Your task to perform on an android device: set an alarm Image 0: 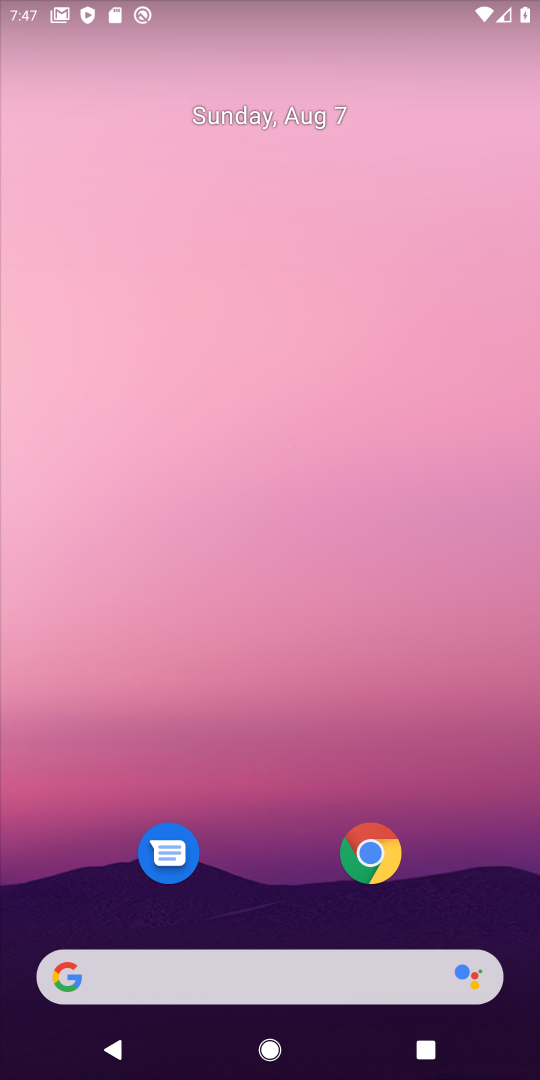
Step 0: drag from (259, 577) to (310, 242)
Your task to perform on an android device: set an alarm Image 1: 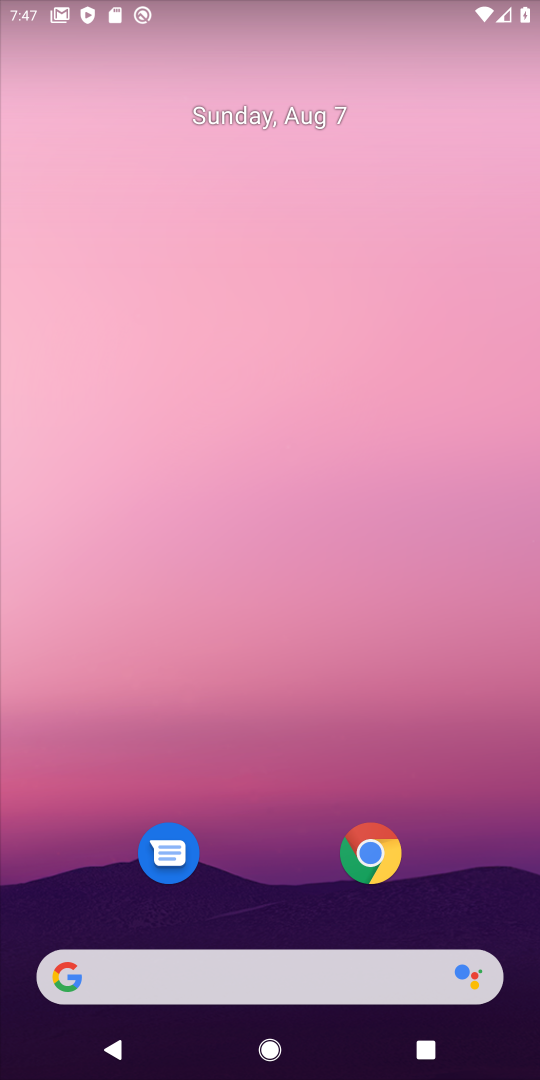
Step 1: drag from (270, 902) to (273, 7)
Your task to perform on an android device: set an alarm Image 2: 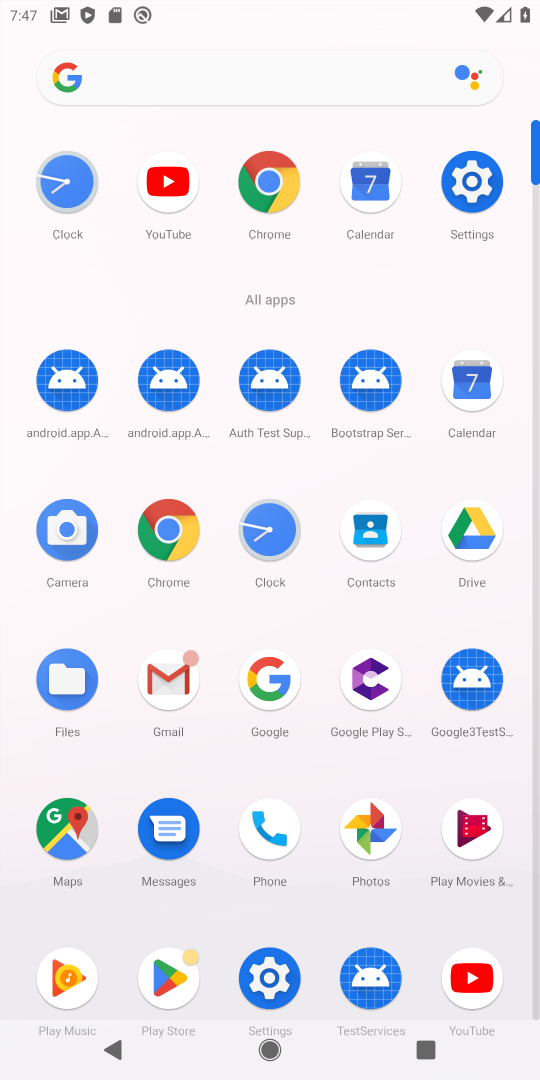
Step 2: click (268, 555)
Your task to perform on an android device: set an alarm Image 3: 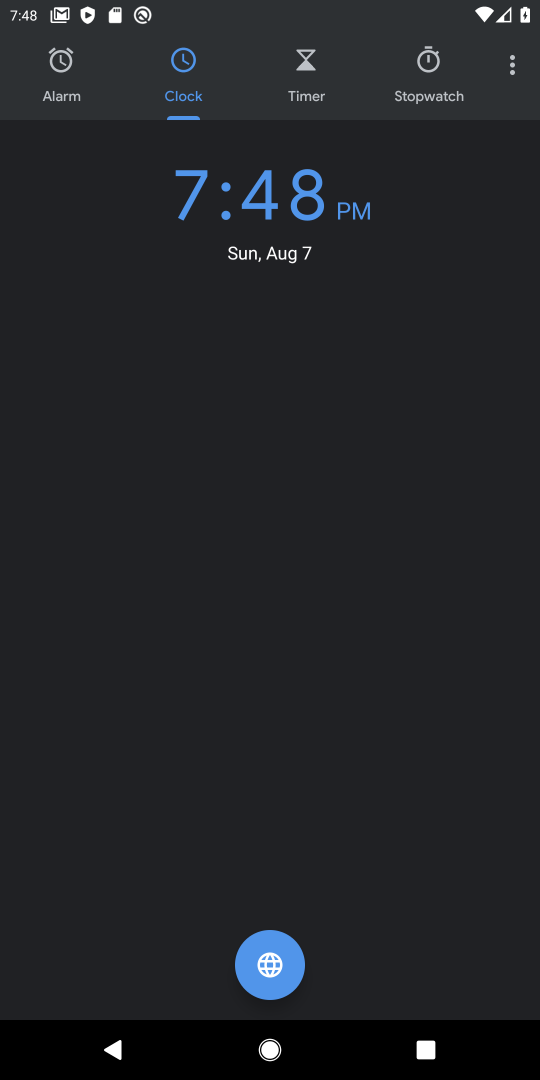
Step 3: click (80, 104)
Your task to perform on an android device: set an alarm Image 4: 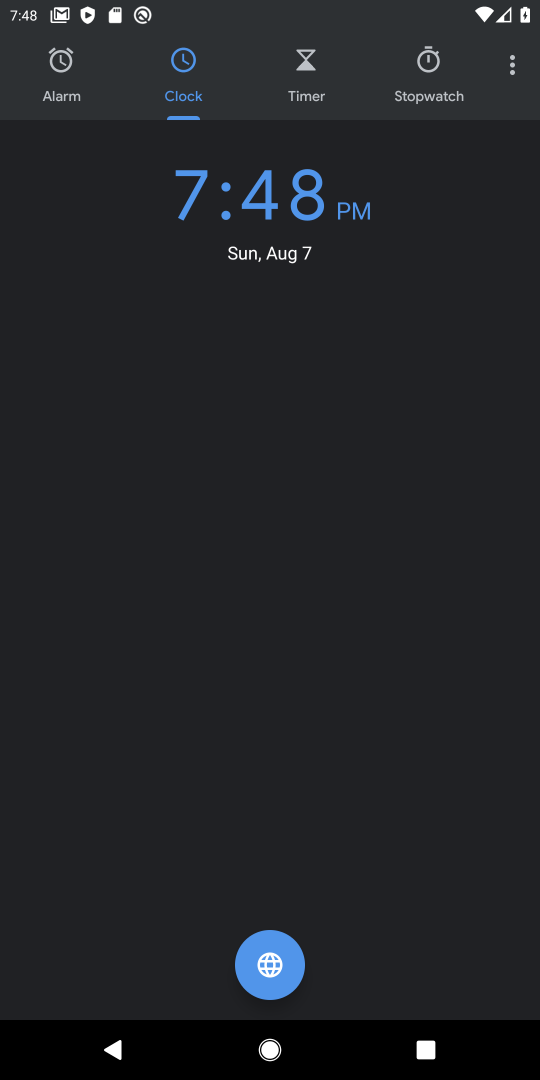
Step 4: click (62, 96)
Your task to perform on an android device: set an alarm Image 5: 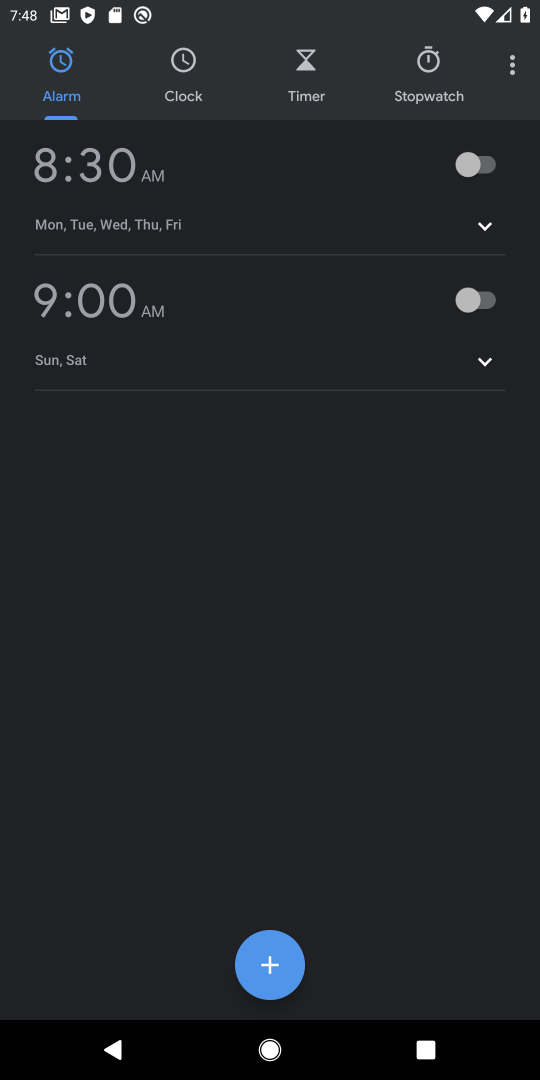
Step 5: click (126, 185)
Your task to perform on an android device: set an alarm Image 6: 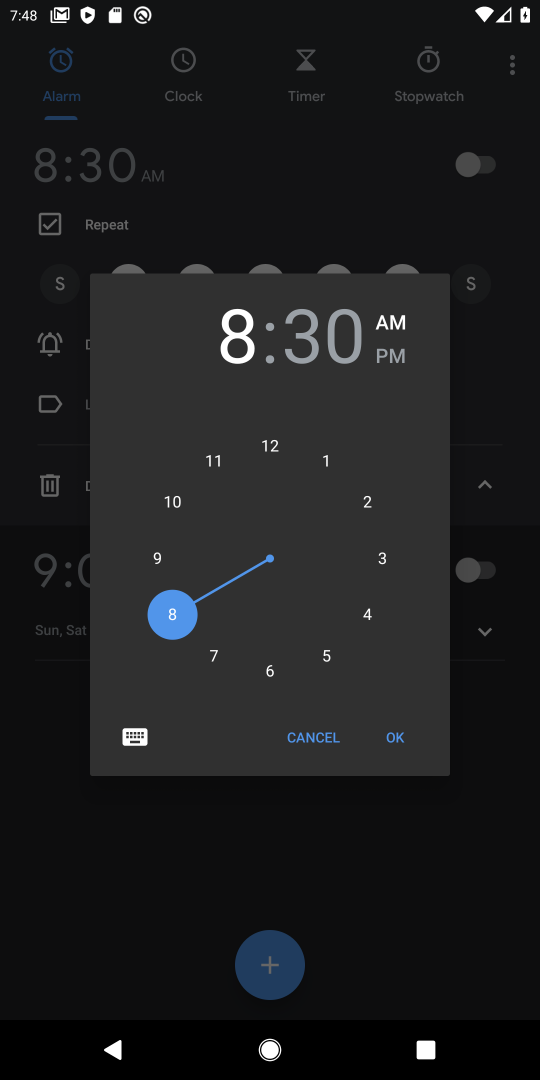
Step 6: click (207, 440)
Your task to perform on an android device: set an alarm Image 7: 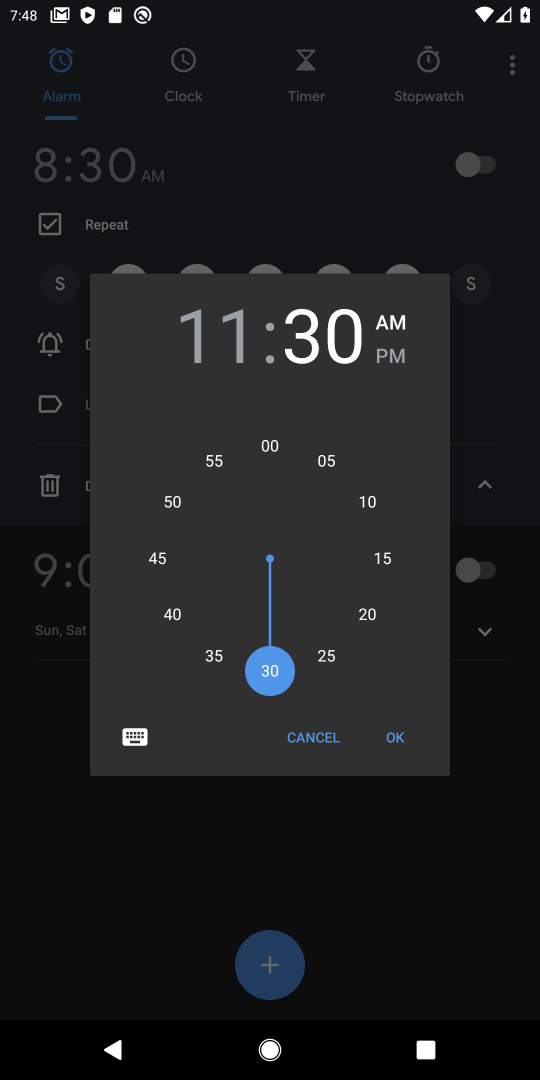
Step 7: click (362, 510)
Your task to perform on an android device: set an alarm Image 8: 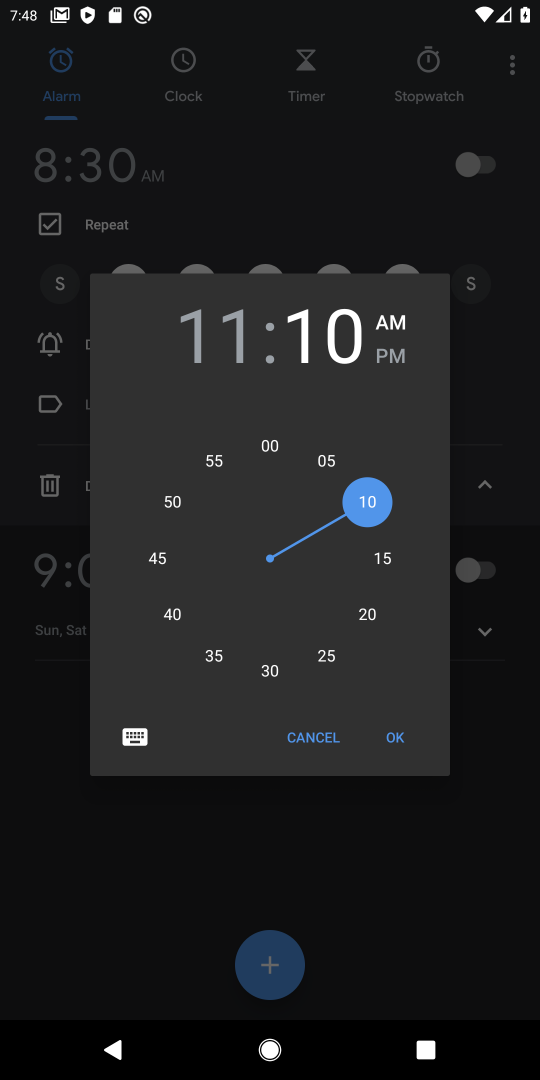
Step 8: click (395, 344)
Your task to perform on an android device: set an alarm Image 9: 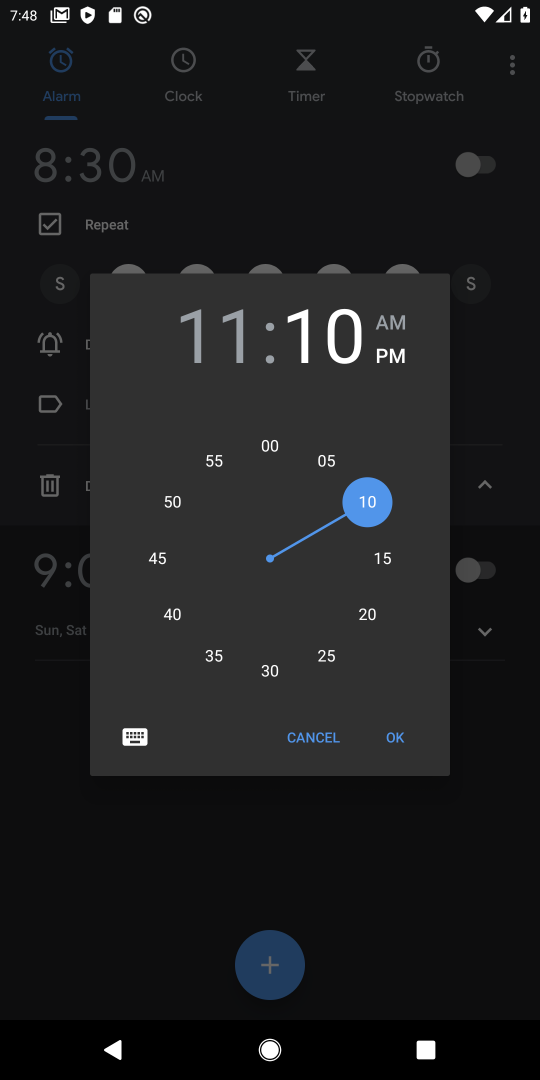
Step 9: click (401, 741)
Your task to perform on an android device: set an alarm Image 10: 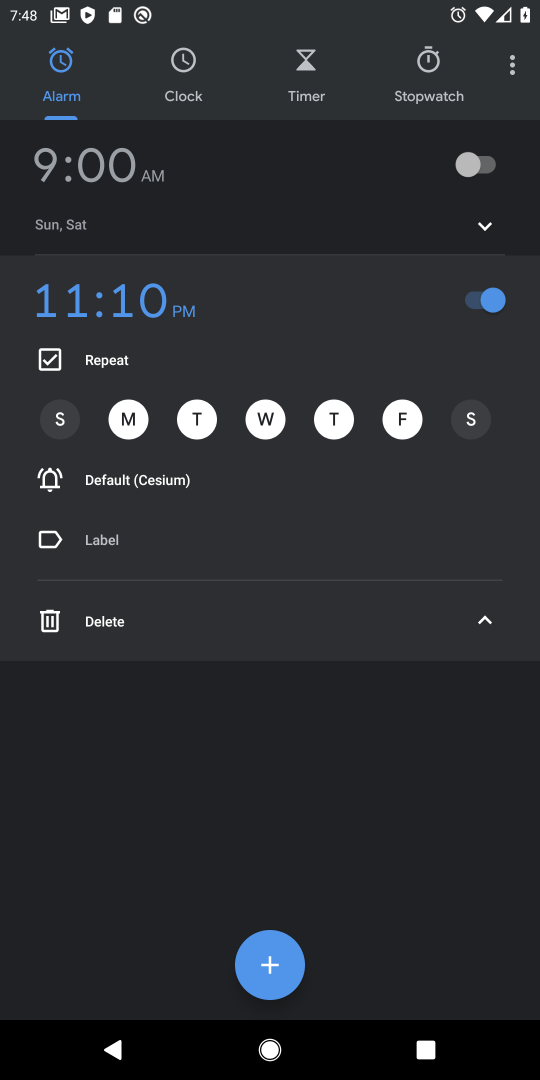
Step 10: click (385, 420)
Your task to perform on an android device: set an alarm Image 11: 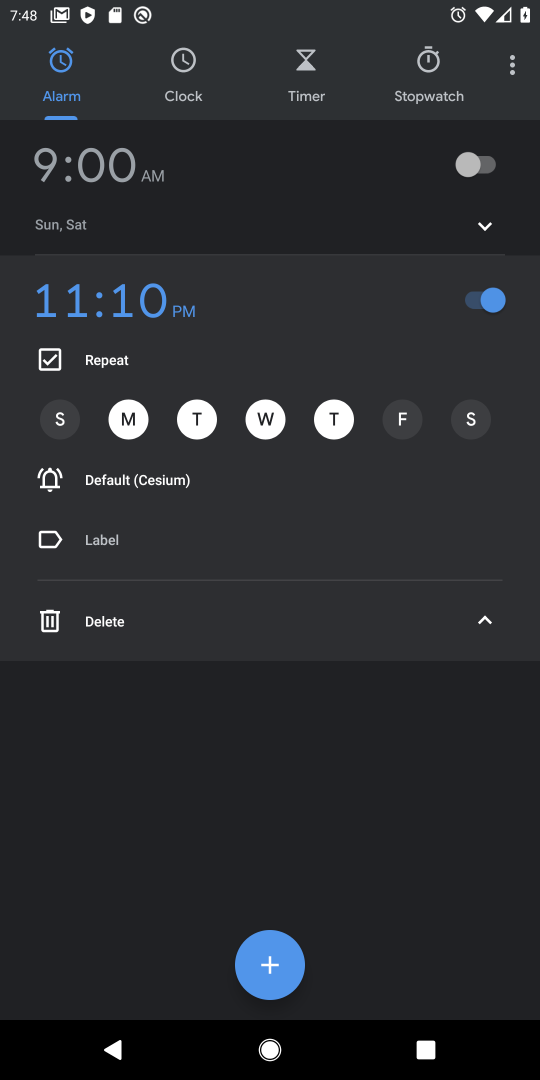
Step 11: click (261, 436)
Your task to perform on an android device: set an alarm Image 12: 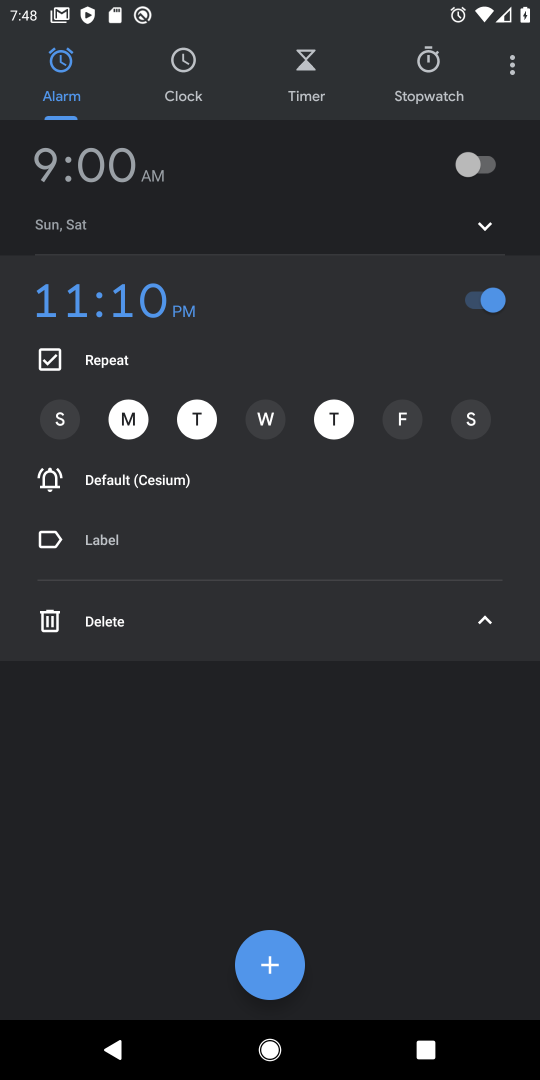
Step 12: task complete